Your task to perform on an android device: Open Maps and search for coffee Image 0: 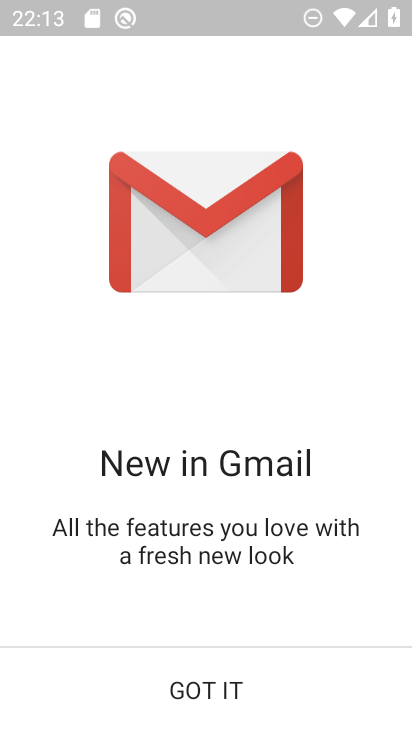
Step 0: press home button
Your task to perform on an android device: Open Maps and search for coffee Image 1: 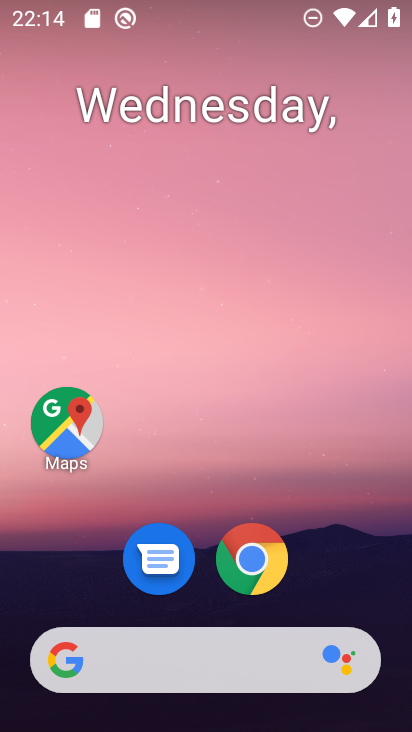
Step 1: drag from (365, 583) to (366, 171)
Your task to perform on an android device: Open Maps and search for coffee Image 2: 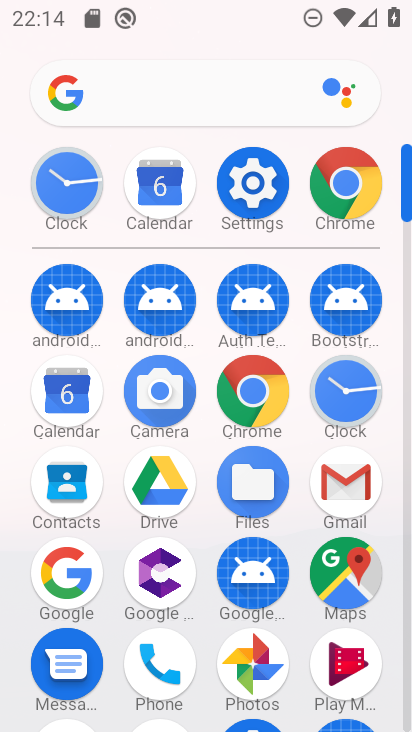
Step 2: click (351, 570)
Your task to perform on an android device: Open Maps and search for coffee Image 3: 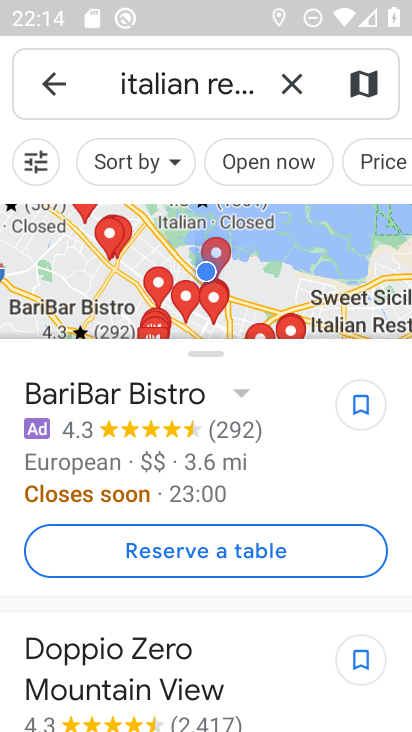
Step 3: press back button
Your task to perform on an android device: Open Maps and search for coffee Image 4: 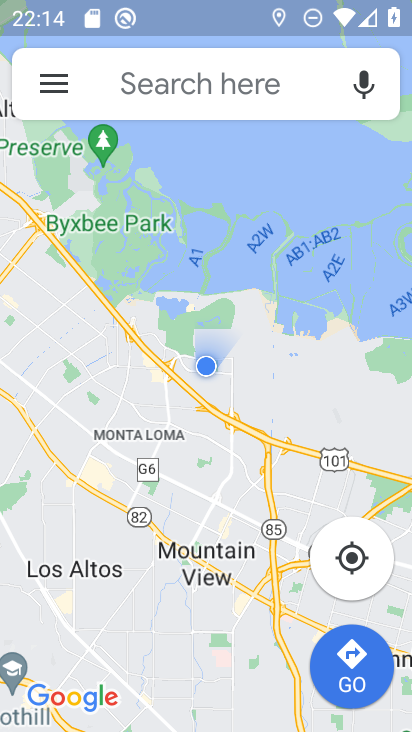
Step 4: click (257, 87)
Your task to perform on an android device: Open Maps and search for coffee Image 5: 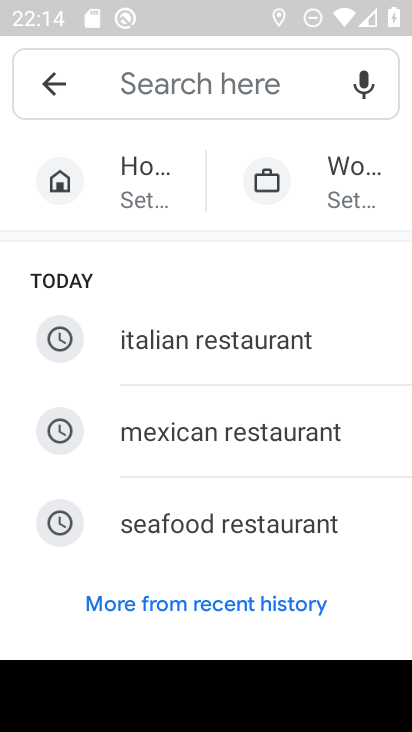
Step 5: type "coffee"
Your task to perform on an android device: Open Maps and search for coffee Image 6: 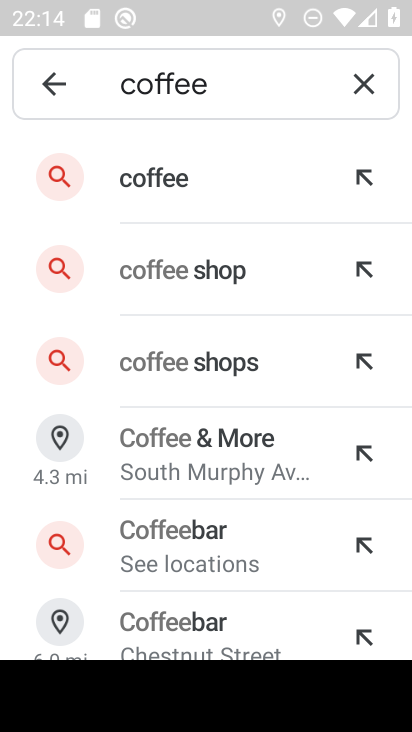
Step 6: click (234, 190)
Your task to perform on an android device: Open Maps and search for coffee Image 7: 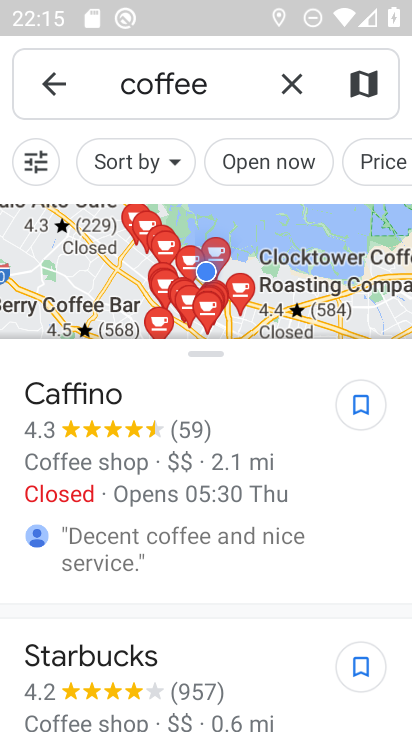
Step 7: task complete